Your task to perform on an android device: turn vacation reply on in the gmail app Image 0: 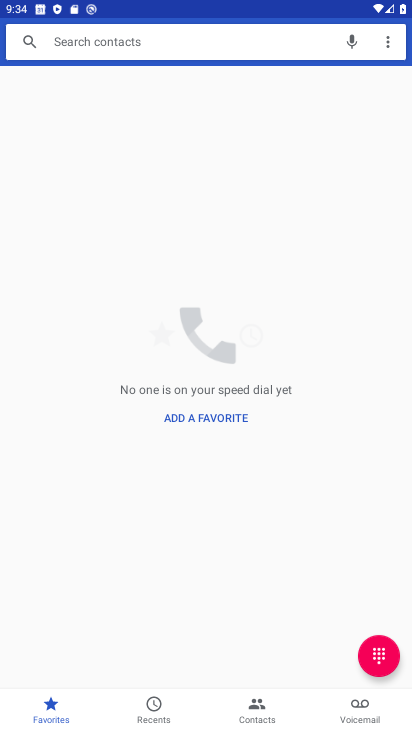
Step 0: drag from (163, 675) to (290, 232)
Your task to perform on an android device: turn vacation reply on in the gmail app Image 1: 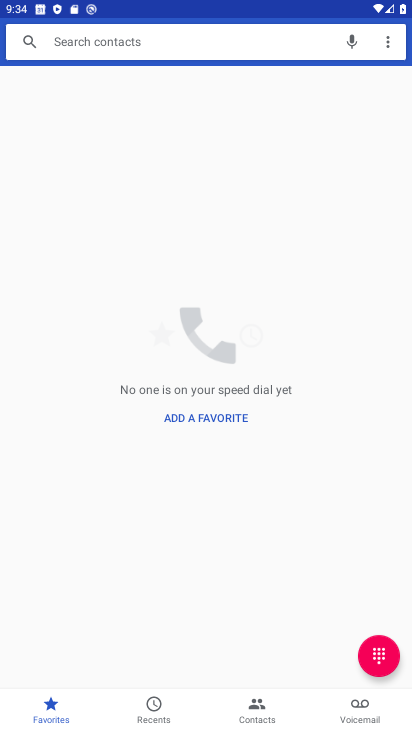
Step 1: drag from (253, 644) to (296, 267)
Your task to perform on an android device: turn vacation reply on in the gmail app Image 2: 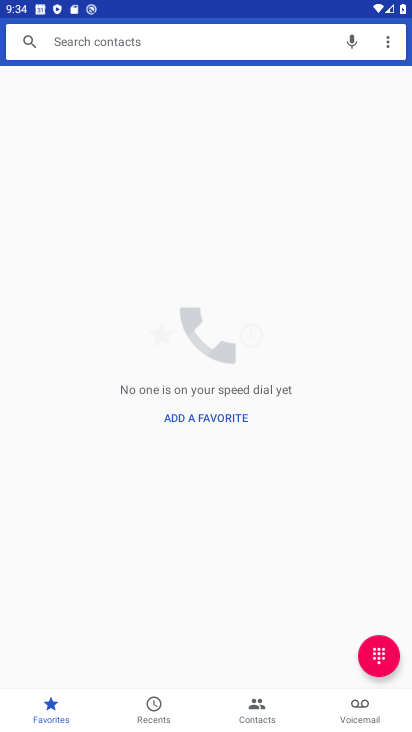
Step 2: press home button
Your task to perform on an android device: turn vacation reply on in the gmail app Image 3: 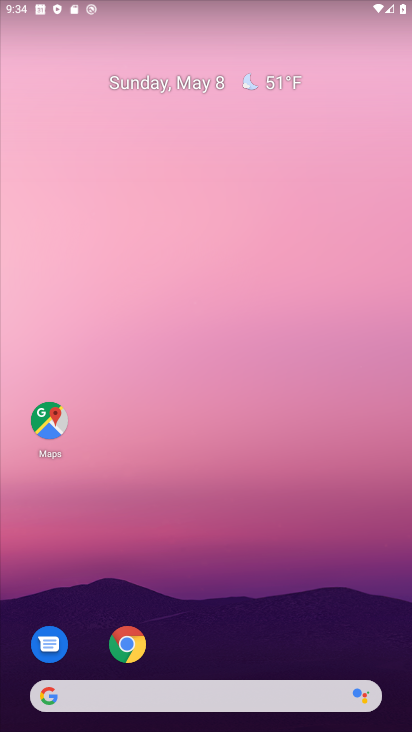
Step 3: drag from (197, 662) to (314, 164)
Your task to perform on an android device: turn vacation reply on in the gmail app Image 4: 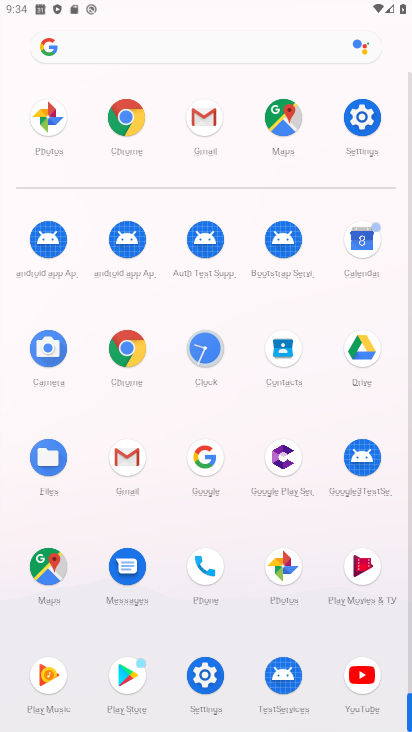
Step 4: click (123, 454)
Your task to perform on an android device: turn vacation reply on in the gmail app Image 5: 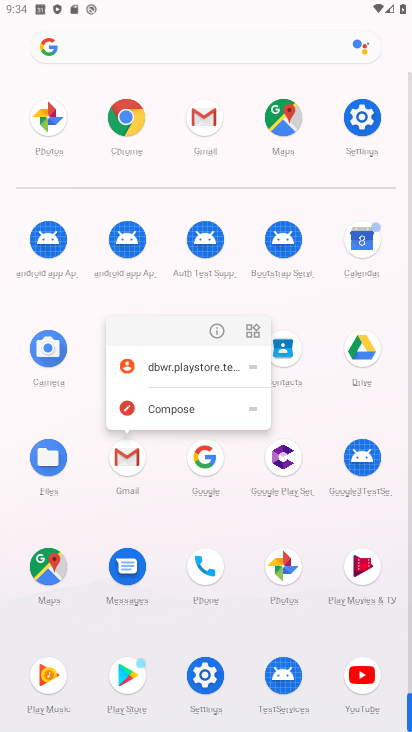
Step 5: click (216, 327)
Your task to perform on an android device: turn vacation reply on in the gmail app Image 6: 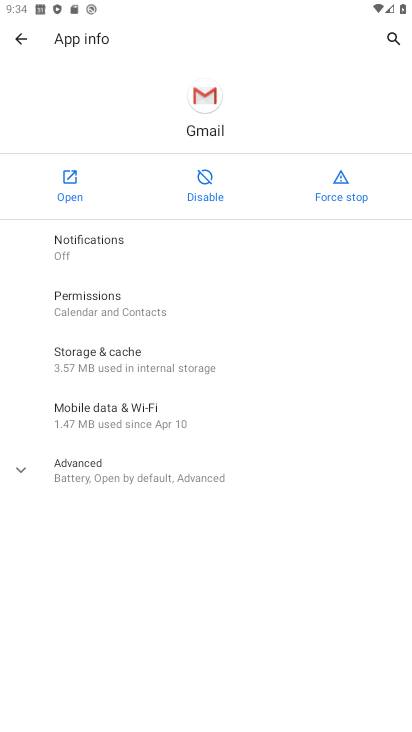
Step 6: click (73, 182)
Your task to perform on an android device: turn vacation reply on in the gmail app Image 7: 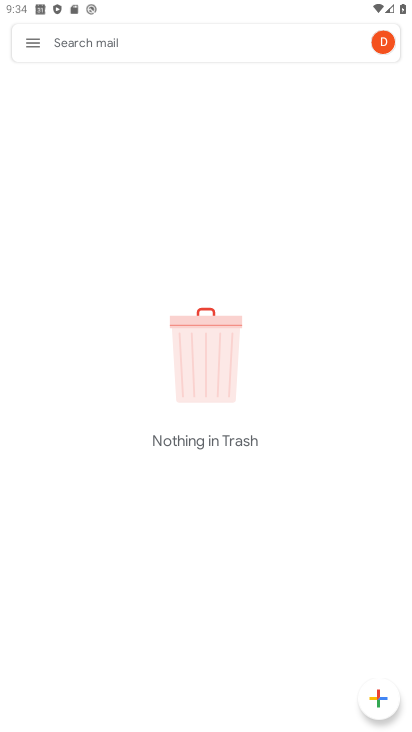
Step 7: click (36, 51)
Your task to perform on an android device: turn vacation reply on in the gmail app Image 8: 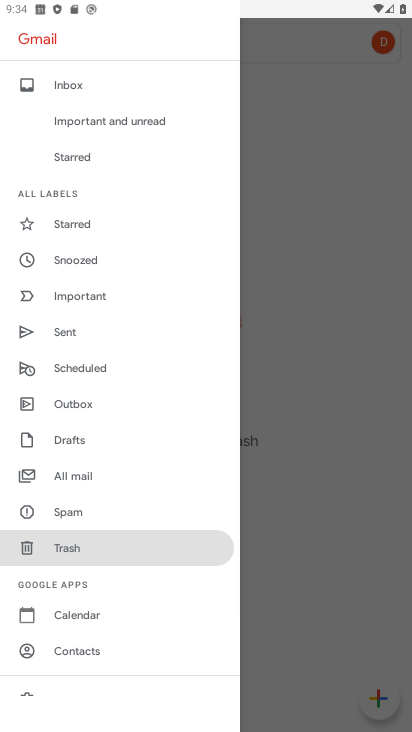
Step 8: drag from (87, 555) to (90, 12)
Your task to perform on an android device: turn vacation reply on in the gmail app Image 9: 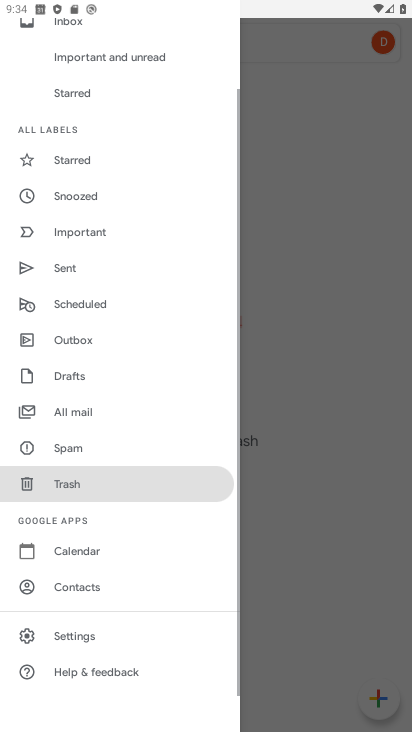
Step 9: click (85, 640)
Your task to perform on an android device: turn vacation reply on in the gmail app Image 10: 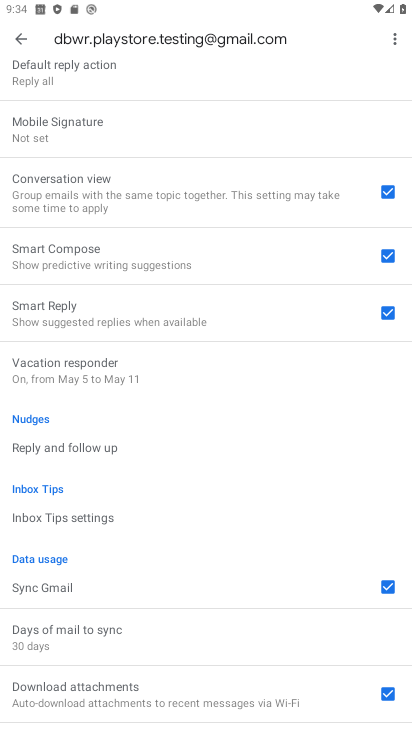
Step 10: click (103, 375)
Your task to perform on an android device: turn vacation reply on in the gmail app Image 11: 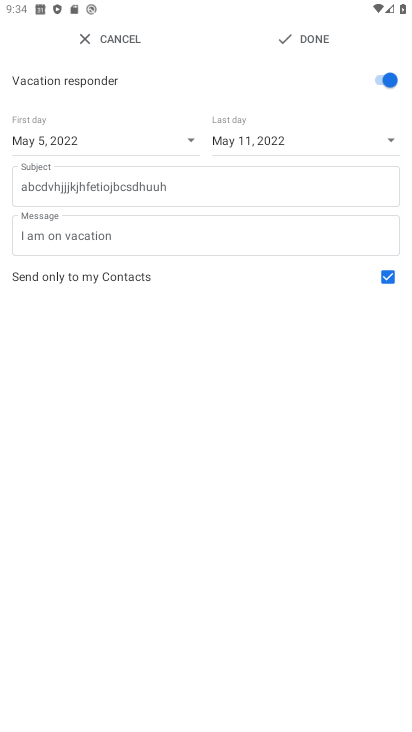
Step 11: click (302, 38)
Your task to perform on an android device: turn vacation reply on in the gmail app Image 12: 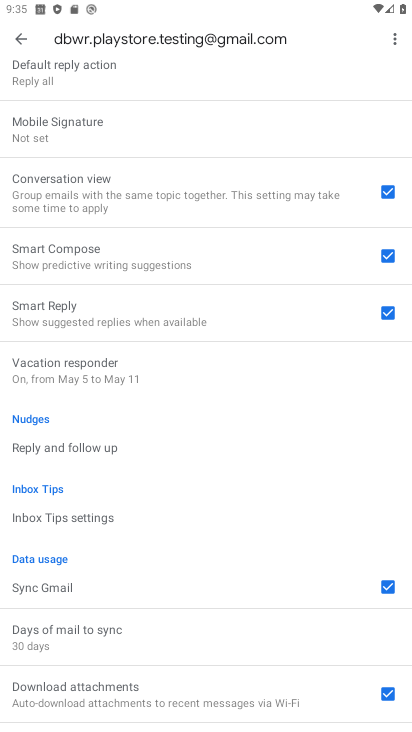
Step 12: task complete